Your task to perform on an android device: Open Google Chrome Image 0: 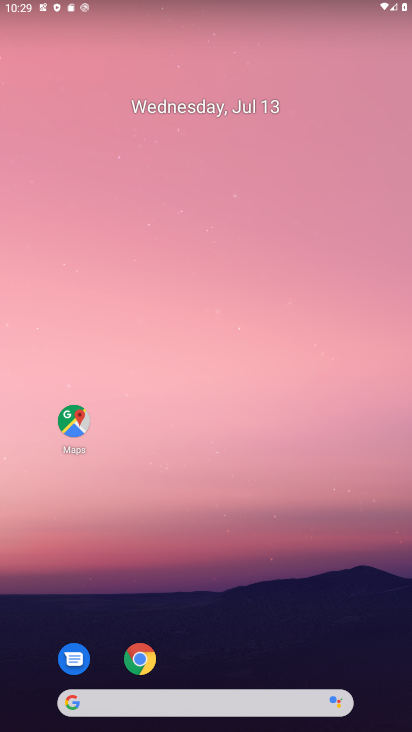
Step 0: drag from (302, 729) to (234, 254)
Your task to perform on an android device: Open Google Chrome Image 1: 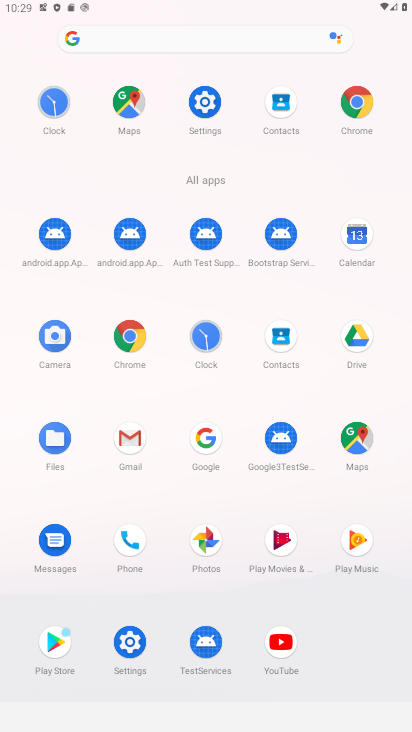
Step 1: click (364, 99)
Your task to perform on an android device: Open Google Chrome Image 2: 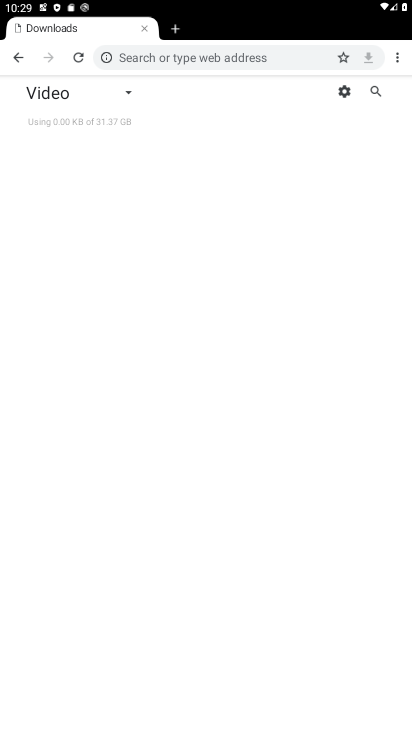
Step 2: task complete